Your task to perform on an android device: Search for seafood restaurants on Google Maps Image 0: 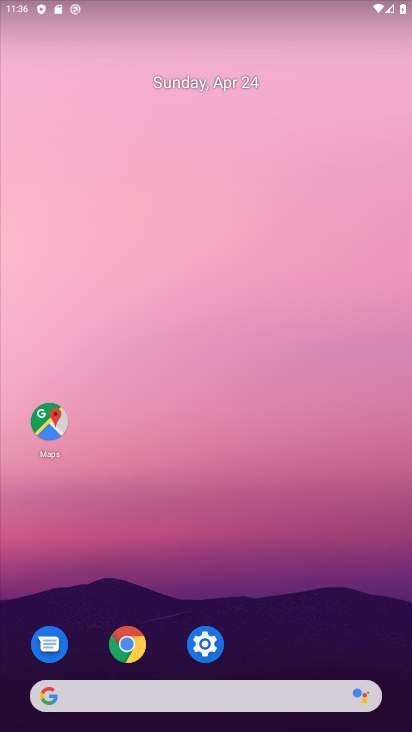
Step 0: drag from (213, 613) to (410, 376)
Your task to perform on an android device: Search for seafood restaurants on Google Maps Image 1: 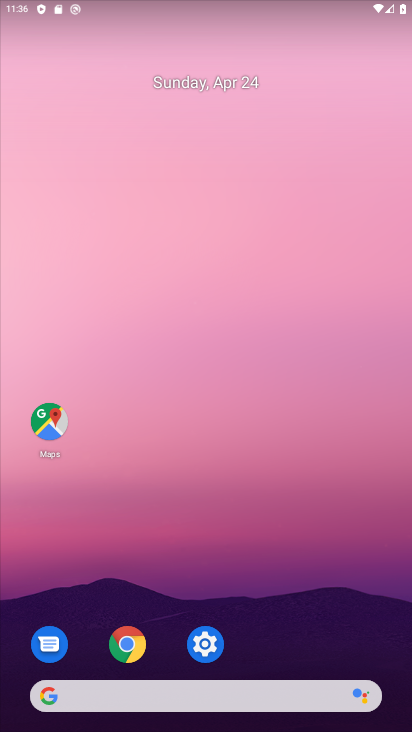
Step 1: drag from (147, 170) to (108, 37)
Your task to perform on an android device: Search for seafood restaurants on Google Maps Image 2: 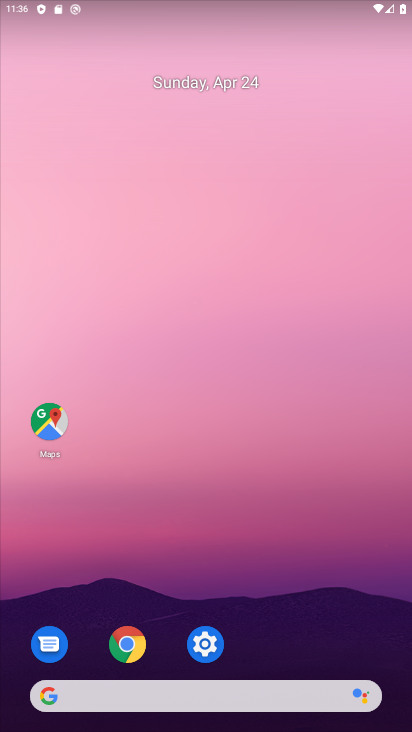
Step 2: drag from (265, 532) to (82, 48)
Your task to perform on an android device: Search for seafood restaurants on Google Maps Image 3: 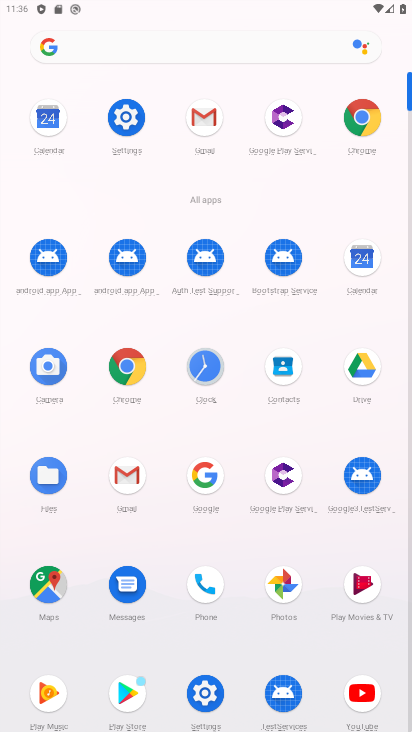
Step 3: click (49, 584)
Your task to perform on an android device: Search for seafood restaurants on Google Maps Image 4: 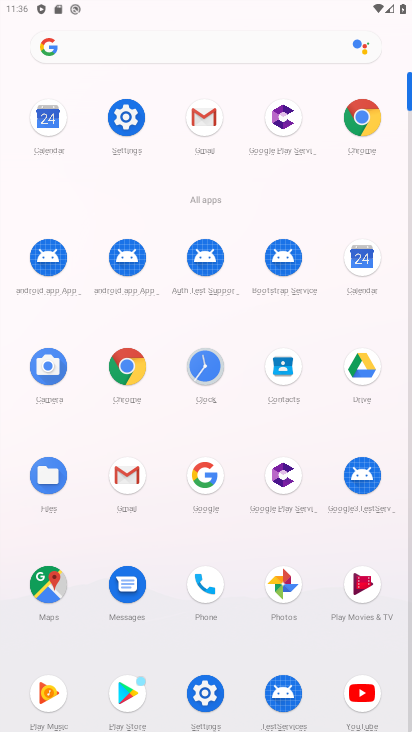
Step 4: click (50, 583)
Your task to perform on an android device: Search for seafood restaurants on Google Maps Image 5: 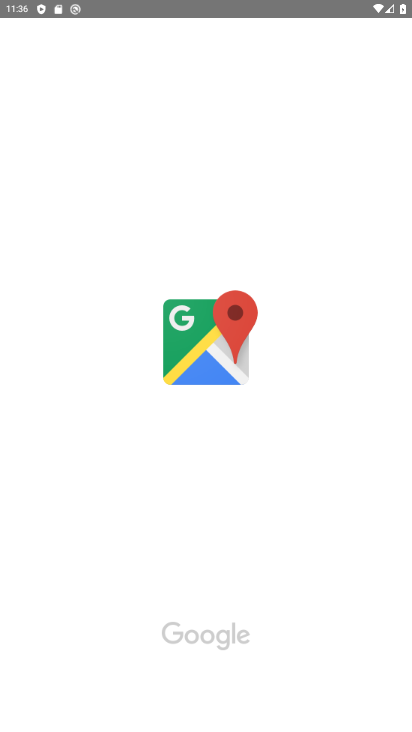
Step 5: click (48, 586)
Your task to perform on an android device: Search for seafood restaurants on Google Maps Image 6: 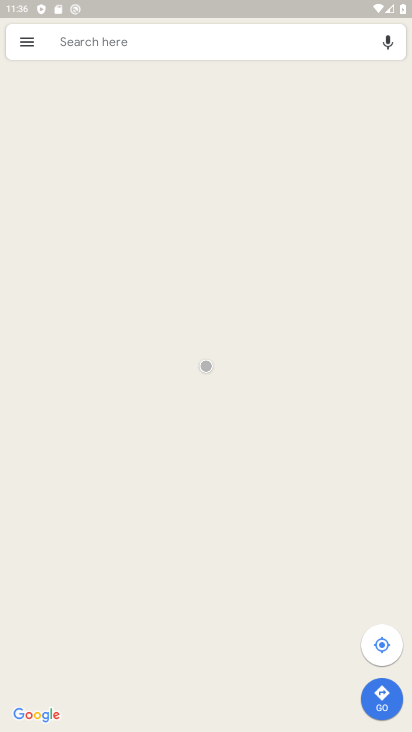
Step 6: click (55, 41)
Your task to perform on an android device: Search for seafood restaurants on Google Maps Image 7: 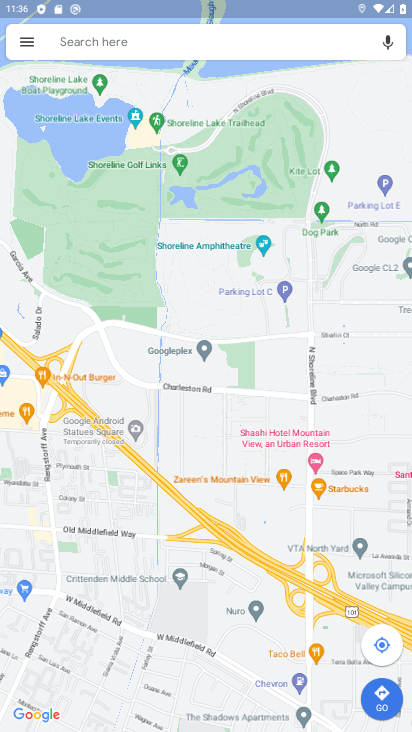
Step 7: click (65, 34)
Your task to perform on an android device: Search for seafood restaurants on Google Maps Image 8: 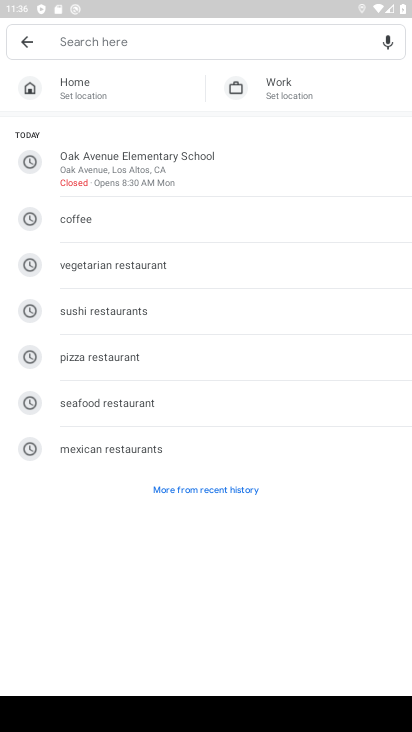
Step 8: click (104, 396)
Your task to perform on an android device: Search for seafood restaurants on Google Maps Image 9: 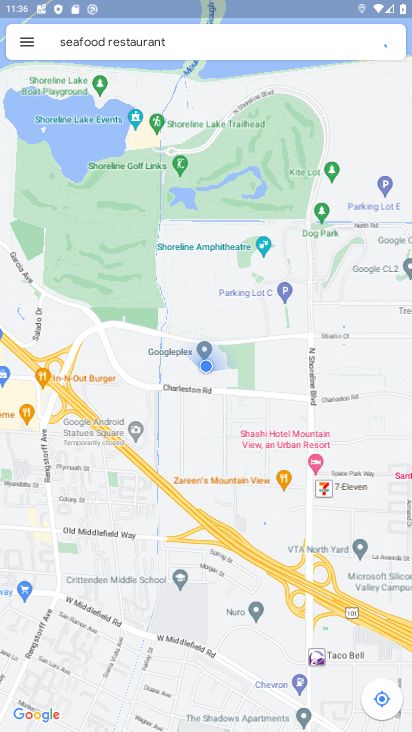
Step 9: task complete